Your task to perform on an android device: toggle translation in the chrome app Image 0: 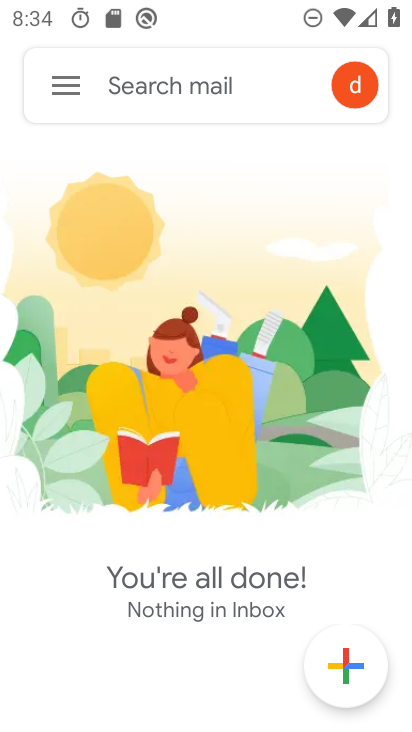
Step 0: press home button
Your task to perform on an android device: toggle translation in the chrome app Image 1: 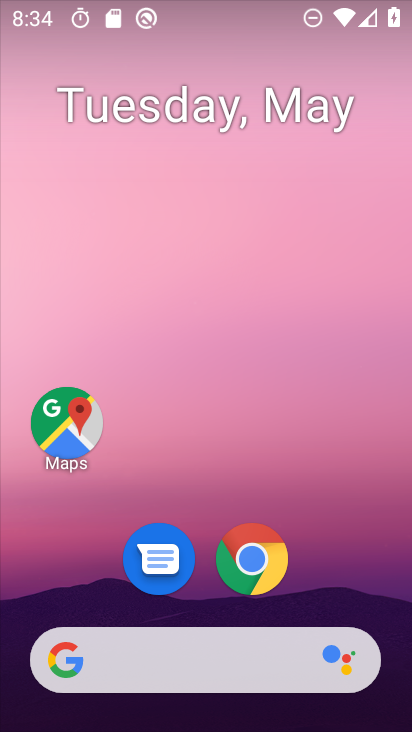
Step 1: drag from (393, 632) to (265, 79)
Your task to perform on an android device: toggle translation in the chrome app Image 2: 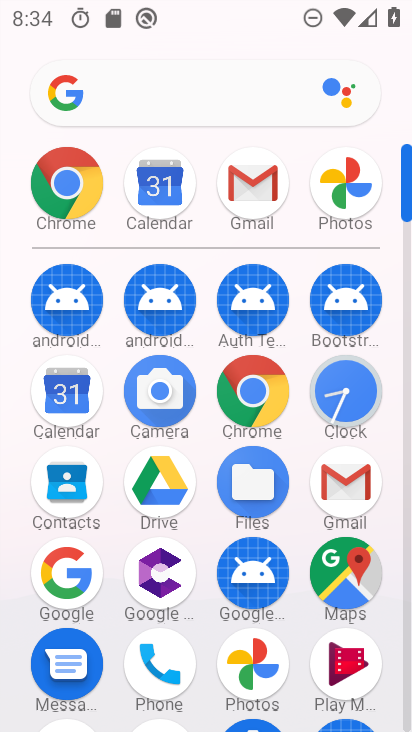
Step 2: click (261, 387)
Your task to perform on an android device: toggle translation in the chrome app Image 3: 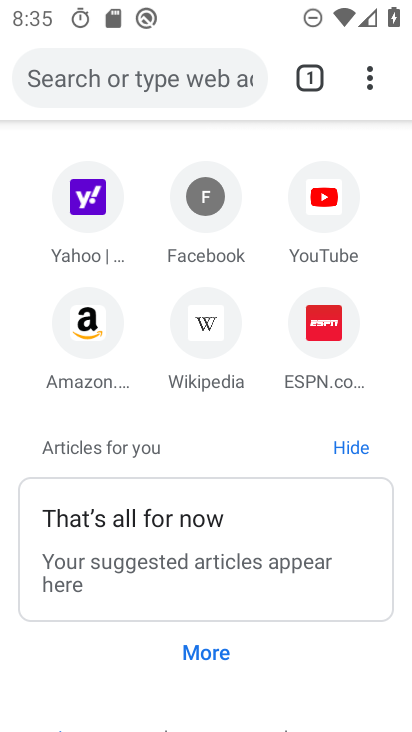
Step 3: click (370, 75)
Your task to perform on an android device: toggle translation in the chrome app Image 4: 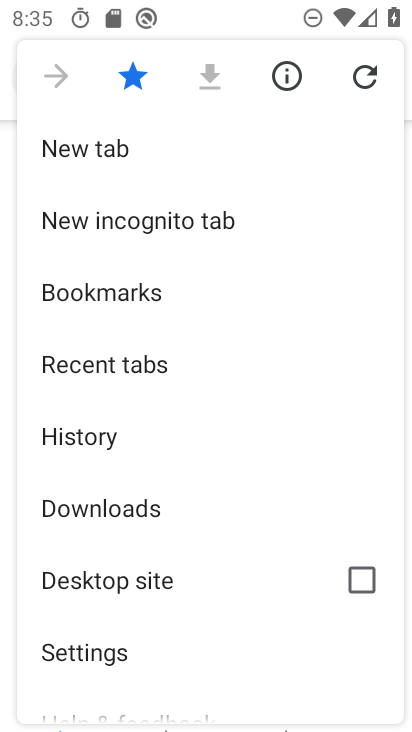
Step 4: click (107, 647)
Your task to perform on an android device: toggle translation in the chrome app Image 5: 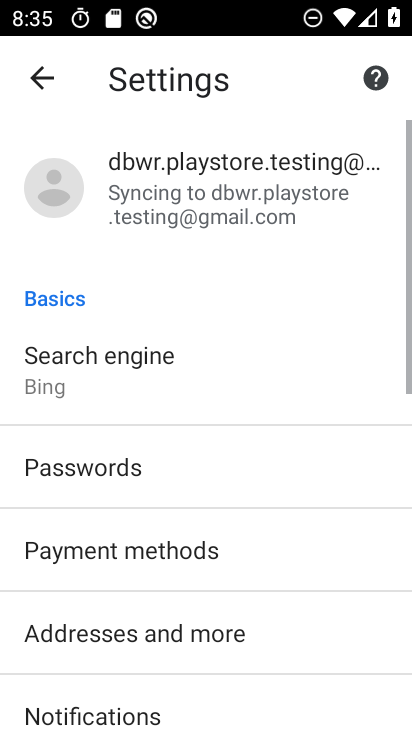
Step 5: drag from (107, 647) to (151, 174)
Your task to perform on an android device: toggle translation in the chrome app Image 6: 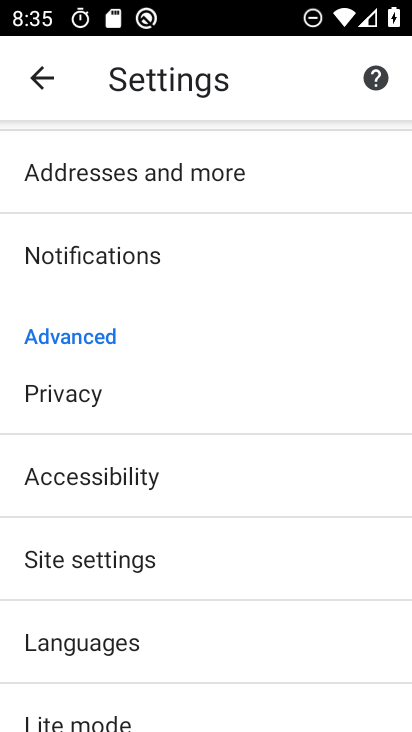
Step 6: click (176, 654)
Your task to perform on an android device: toggle translation in the chrome app Image 7: 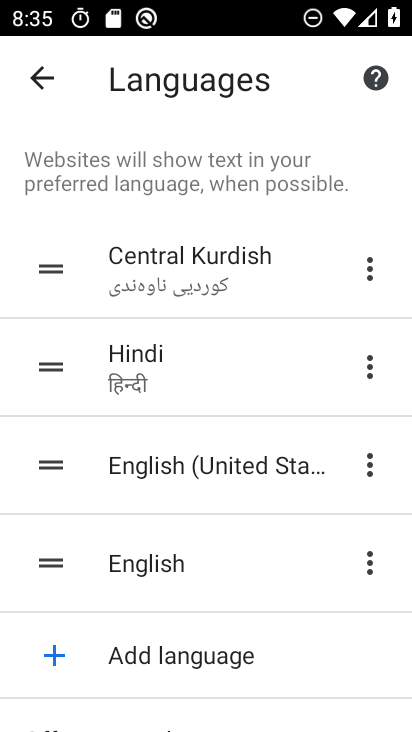
Step 7: drag from (203, 645) to (198, 113)
Your task to perform on an android device: toggle translation in the chrome app Image 8: 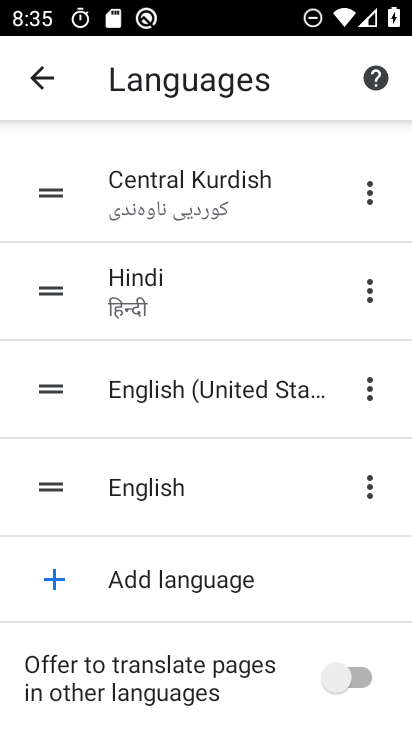
Step 8: click (309, 675)
Your task to perform on an android device: toggle translation in the chrome app Image 9: 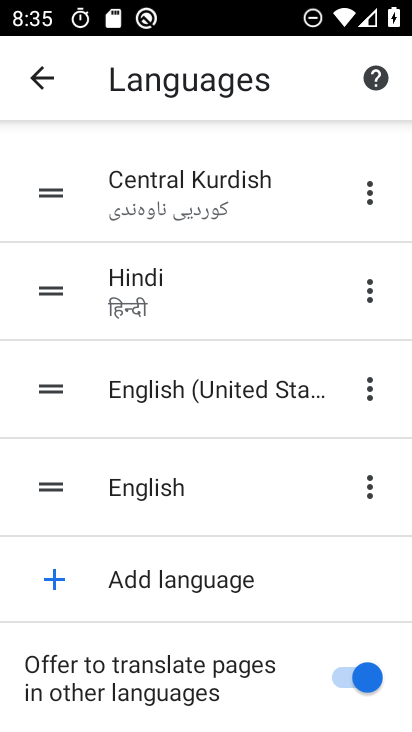
Step 9: task complete